Your task to perform on an android device: turn notification dots on Image 0: 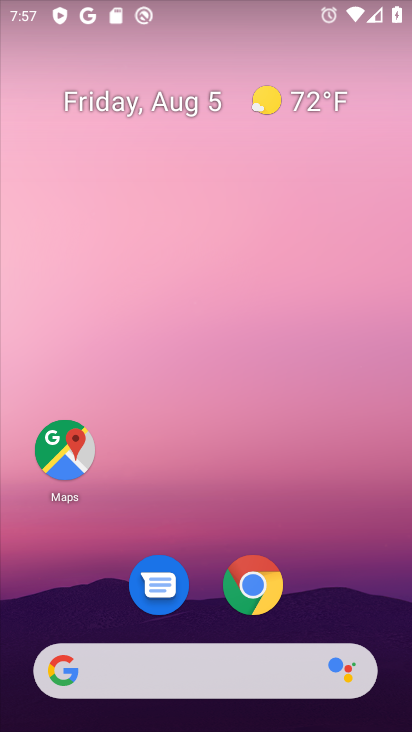
Step 0: drag from (344, 548) to (256, 0)
Your task to perform on an android device: turn notification dots on Image 1: 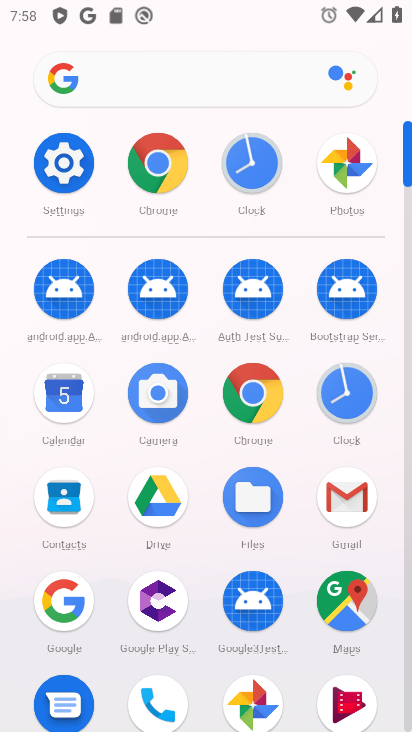
Step 1: click (69, 168)
Your task to perform on an android device: turn notification dots on Image 2: 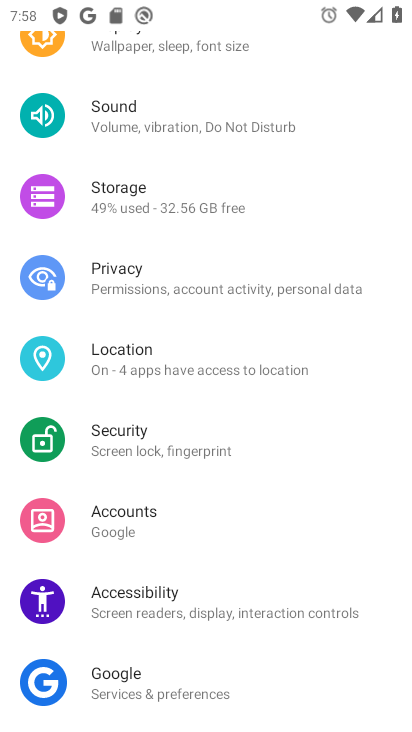
Step 2: drag from (241, 300) to (238, 516)
Your task to perform on an android device: turn notification dots on Image 3: 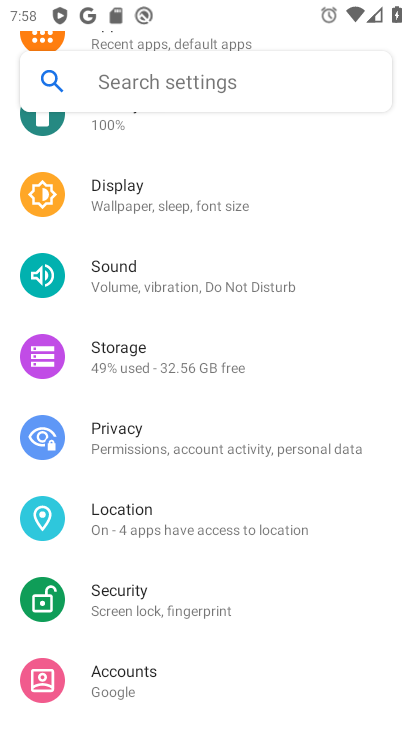
Step 3: drag from (240, 211) to (219, 456)
Your task to perform on an android device: turn notification dots on Image 4: 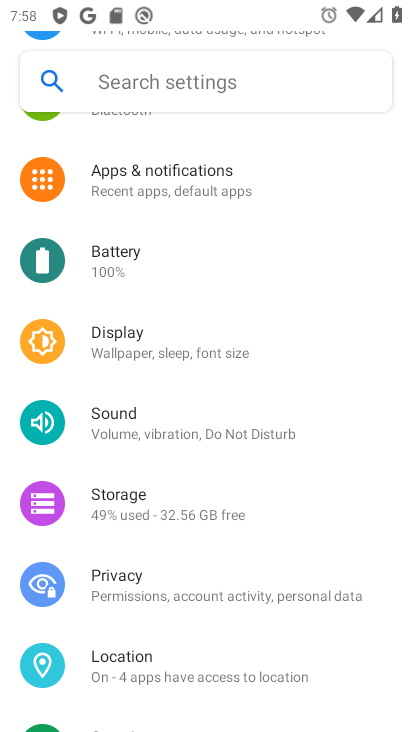
Step 4: drag from (218, 257) to (240, 613)
Your task to perform on an android device: turn notification dots on Image 5: 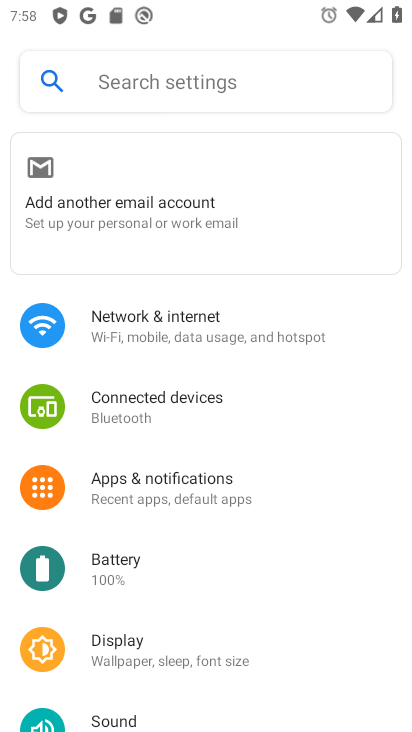
Step 5: click (221, 490)
Your task to perform on an android device: turn notification dots on Image 6: 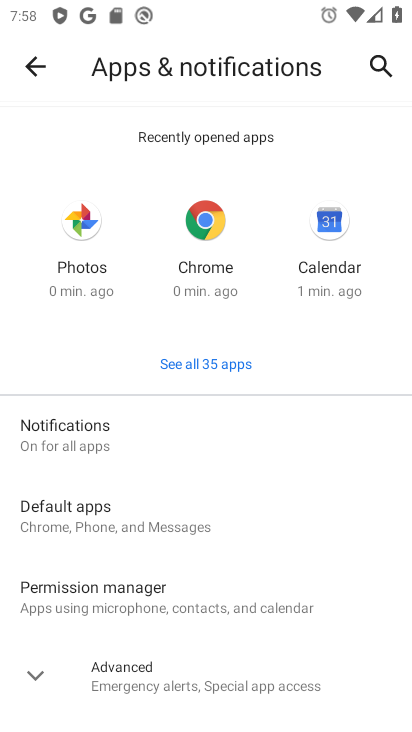
Step 6: click (75, 432)
Your task to perform on an android device: turn notification dots on Image 7: 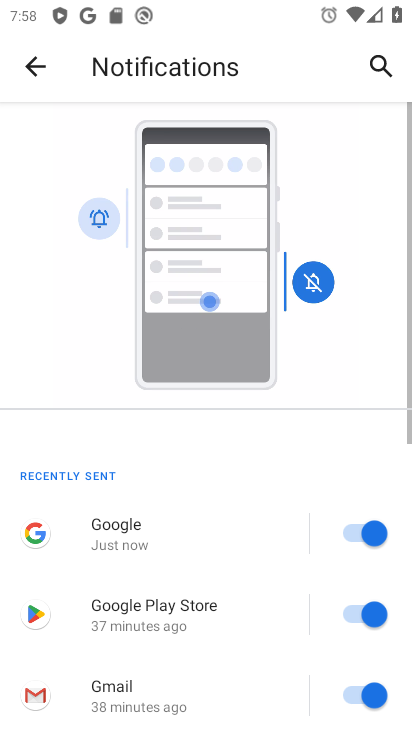
Step 7: drag from (216, 582) to (239, 40)
Your task to perform on an android device: turn notification dots on Image 8: 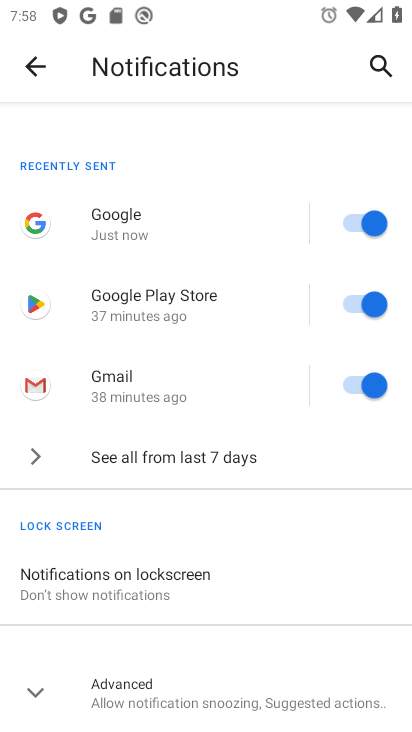
Step 8: click (38, 694)
Your task to perform on an android device: turn notification dots on Image 9: 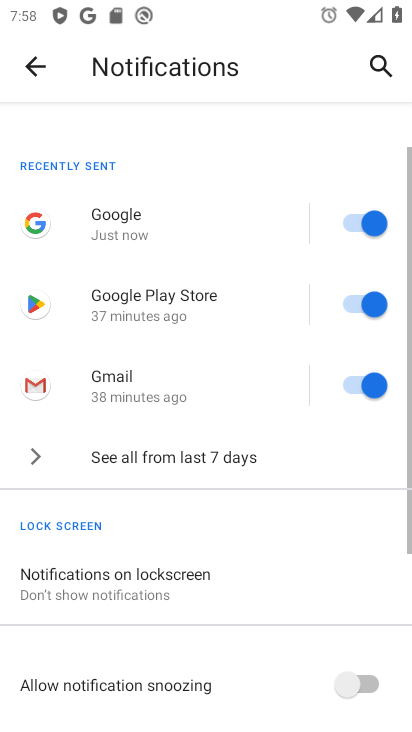
Step 9: task complete